Your task to perform on an android device: toggle javascript in the chrome app Image 0: 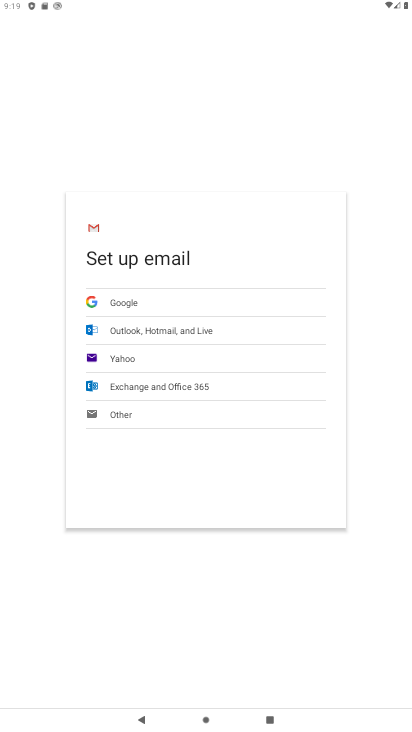
Step 0: press home button
Your task to perform on an android device: toggle javascript in the chrome app Image 1: 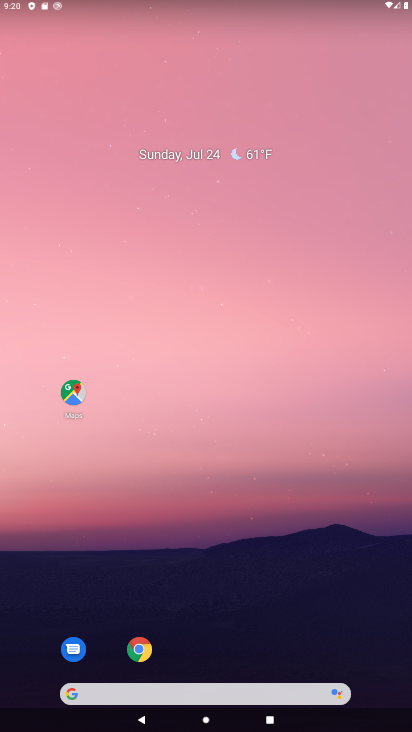
Step 1: drag from (262, 656) to (167, 64)
Your task to perform on an android device: toggle javascript in the chrome app Image 2: 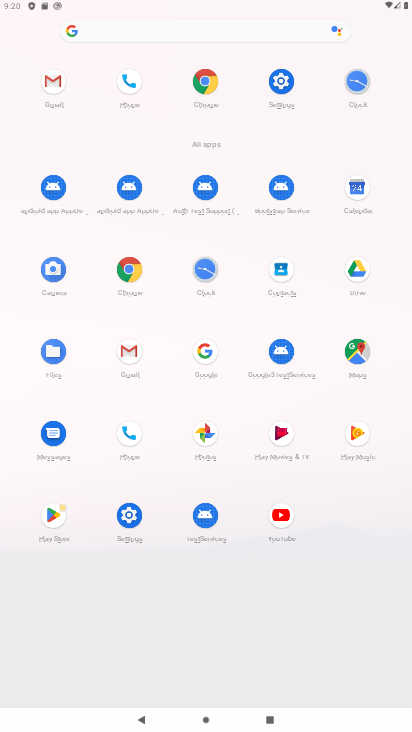
Step 2: click (209, 80)
Your task to perform on an android device: toggle javascript in the chrome app Image 3: 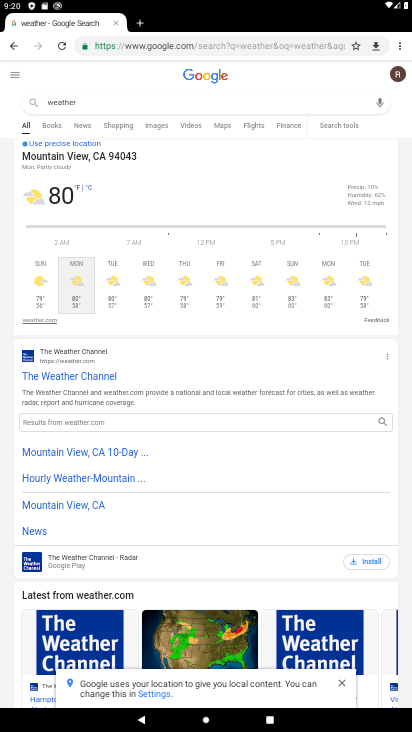
Step 3: drag from (407, 34) to (308, 317)
Your task to perform on an android device: toggle javascript in the chrome app Image 4: 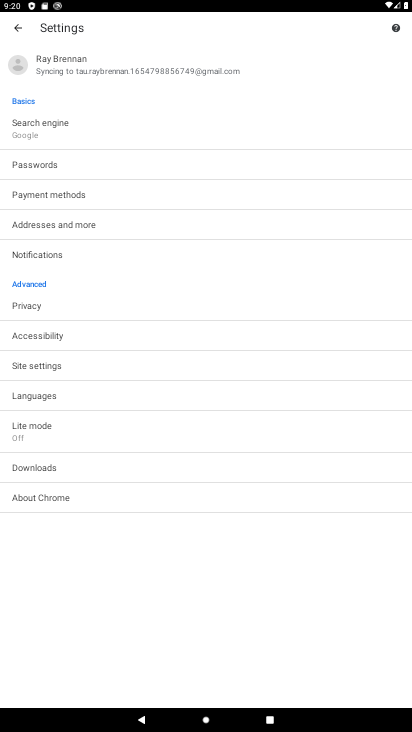
Step 4: click (54, 375)
Your task to perform on an android device: toggle javascript in the chrome app Image 5: 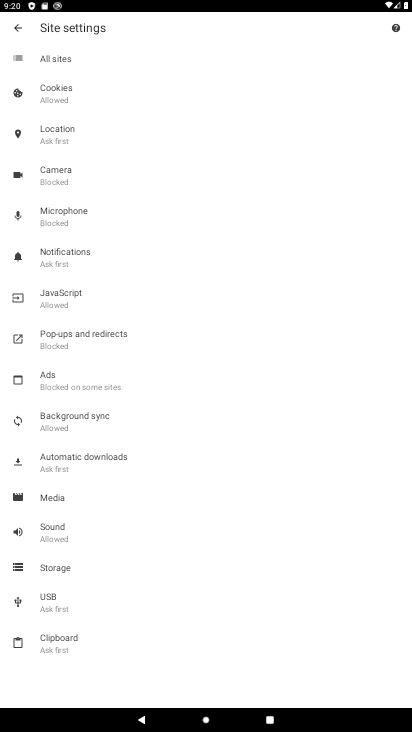
Step 5: click (70, 303)
Your task to perform on an android device: toggle javascript in the chrome app Image 6: 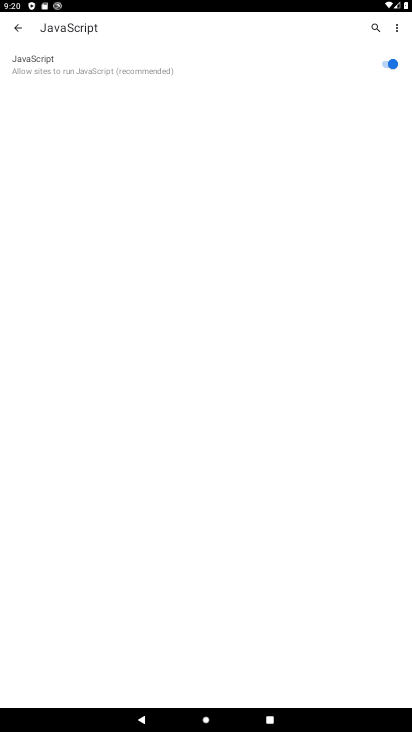
Step 6: click (389, 63)
Your task to perform on an android device: toggle javascript in the chrome app Image 7: 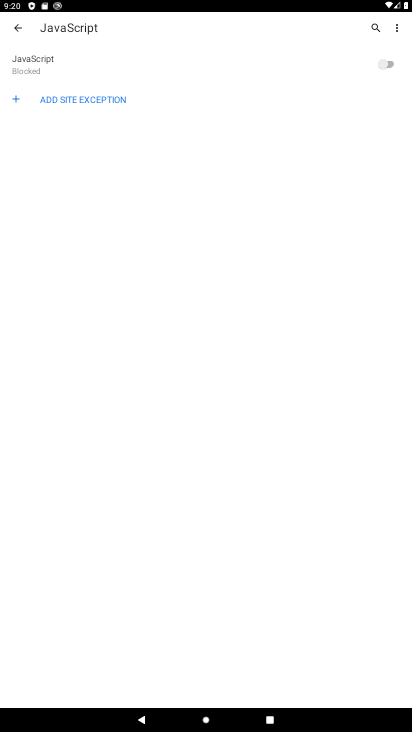
Step 7: task complete